Your task to perform on an android device: Install the Lyft app Image 0: 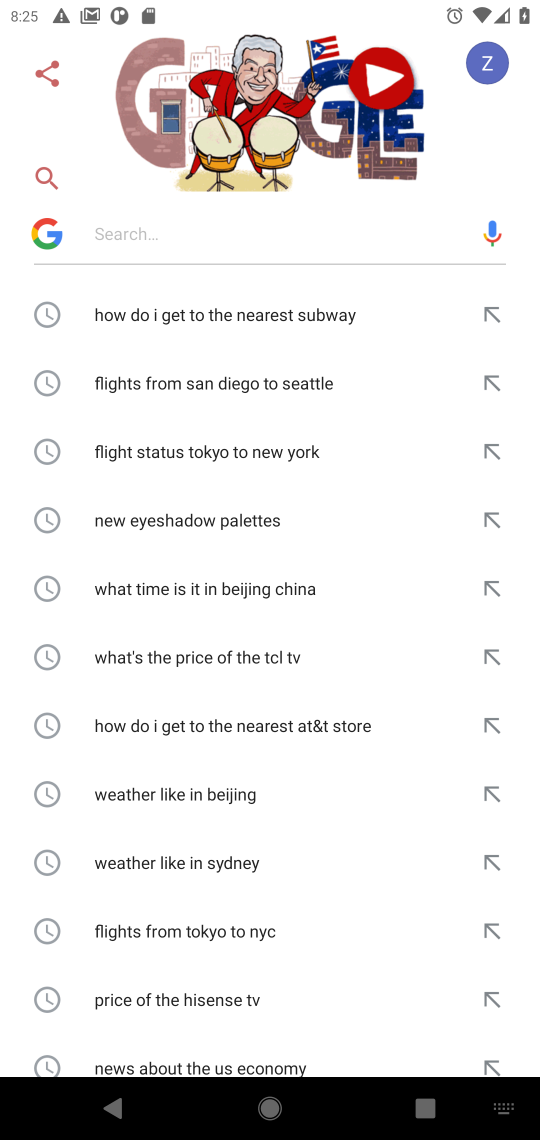
Step 0: press home button
Your task to perform on an android device: Install the Lyft app Image 1: 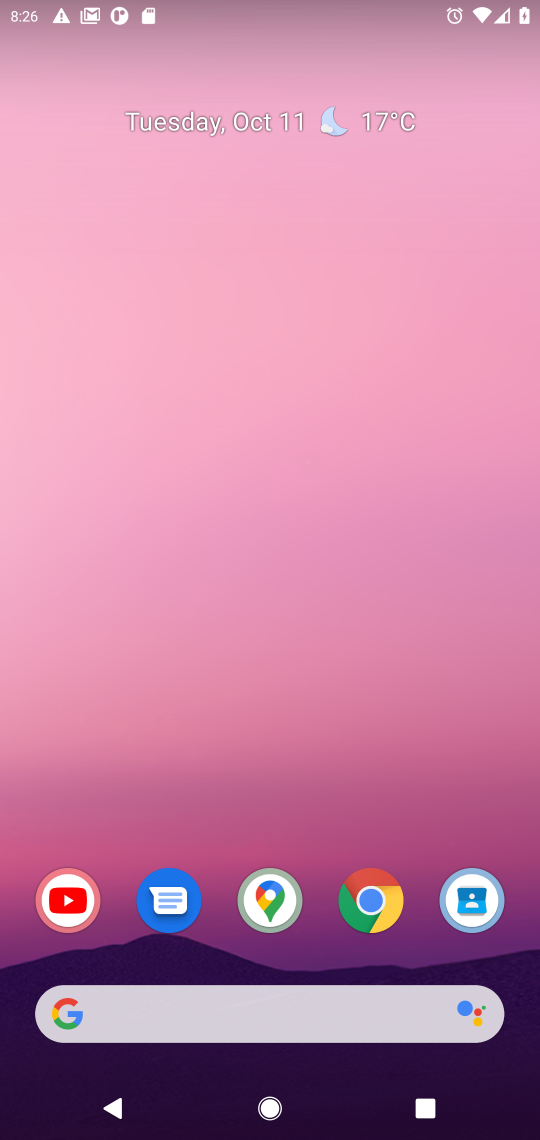
Step 1: drag from (290, 1010) to (440, 265)
Your task to perform on an android device: Install the Lyft app Image 2: 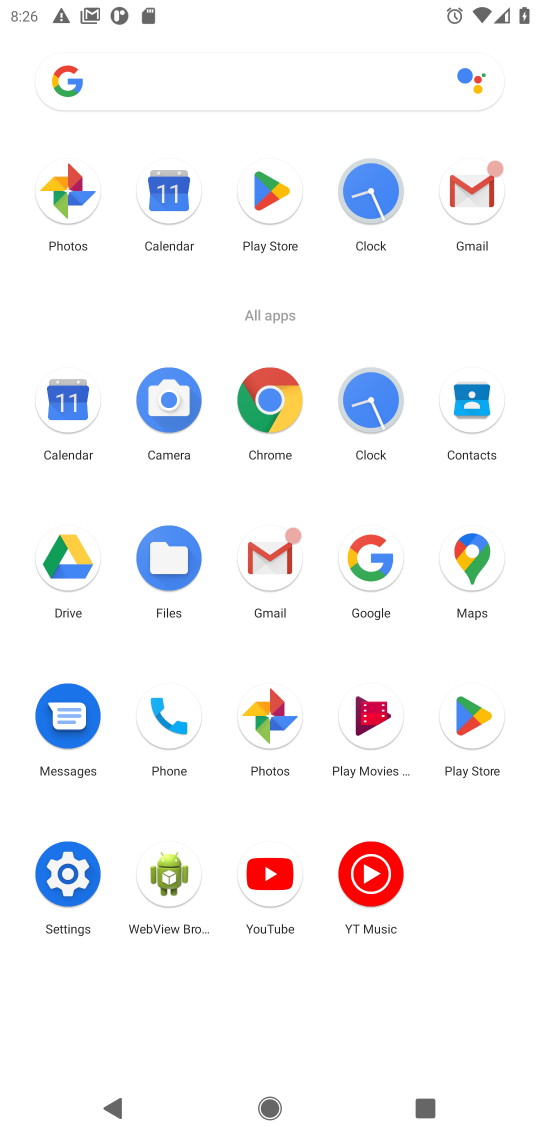
Step 2: click (471, 715)
Your task to perform on an android device: Install the Lyft app Image 3: 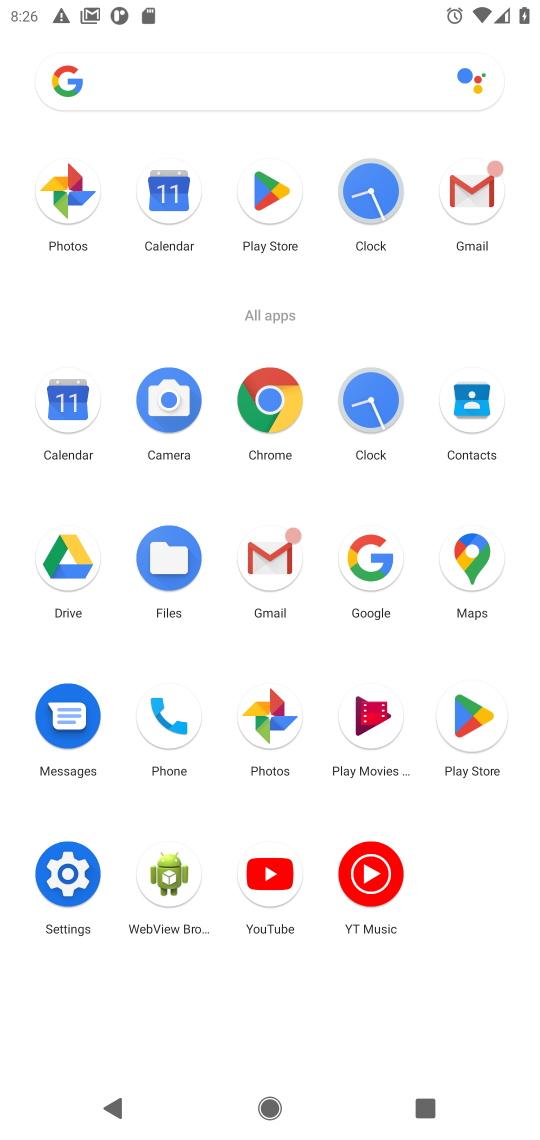
Step 3: click (471, 726)
Your task to perform on an android device: Install the Lyft app Image 4: 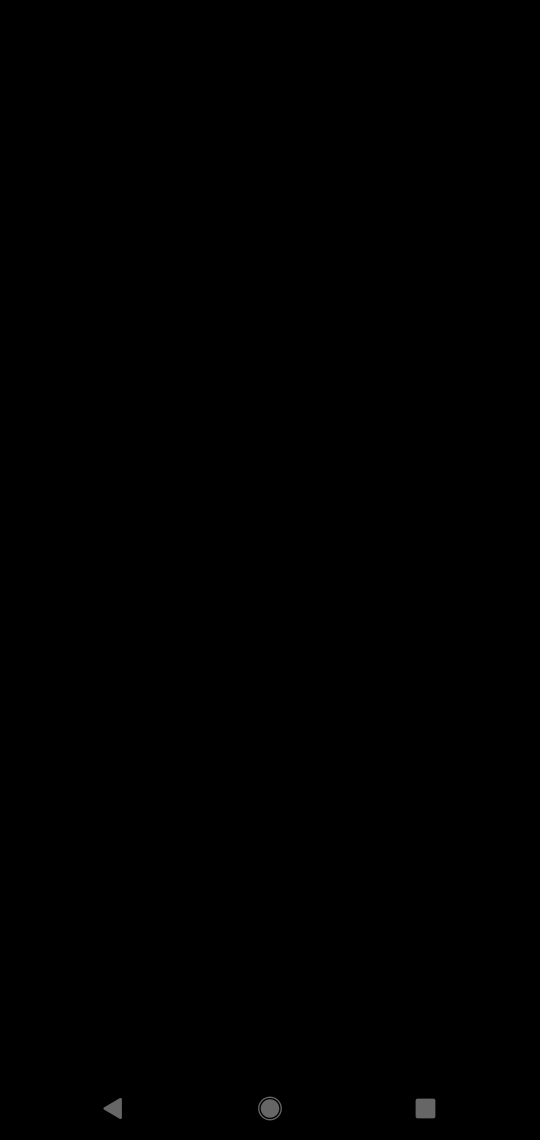
Step 4: task complete